Your task to perform on an android device: Open the calendar and show me this week's events? Image 0: 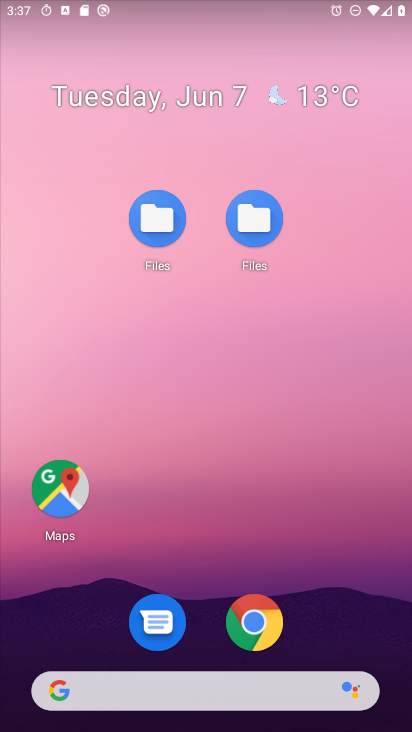
Step 0: drag from (341, 614) to (352, 212)
Your task to perform on an android device: Open the calendar and show me this week's events? Image 1: 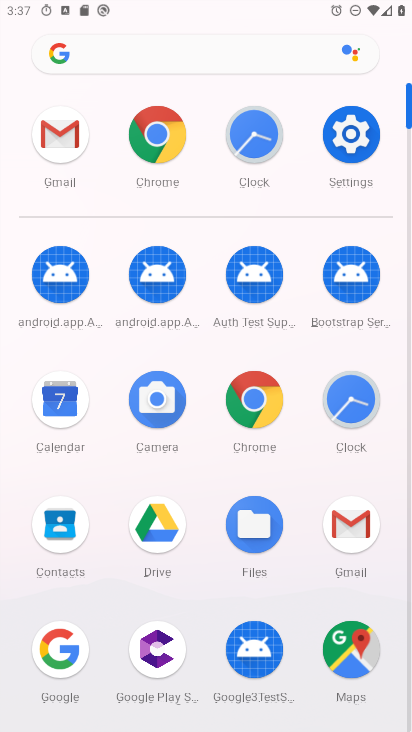
Step 1: click (59, 402)
Your task to perform on an android device: Open the calendar and show me this week's events? Image 2: 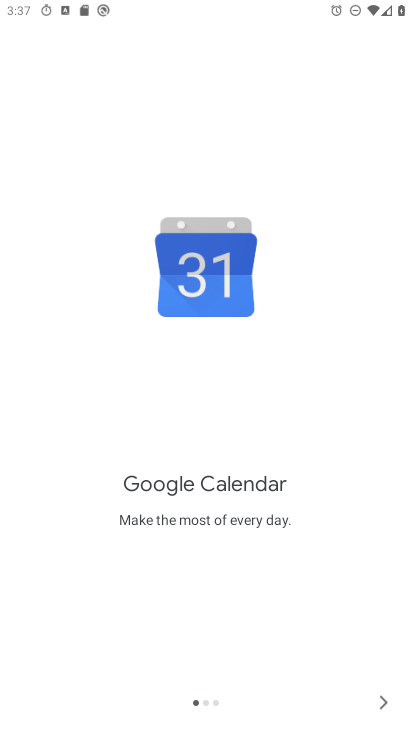
Step 2: click (377, 704)
Your task to perform on an android device: Open the calendar and show me this week's events? Image 3: 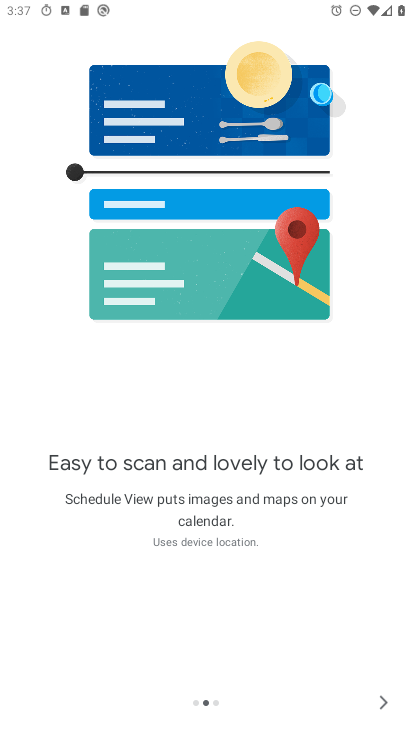
Step 3: click (386, 703)
Your task to perform on an android device: Open the calendar and show me this week's events? Image 4: 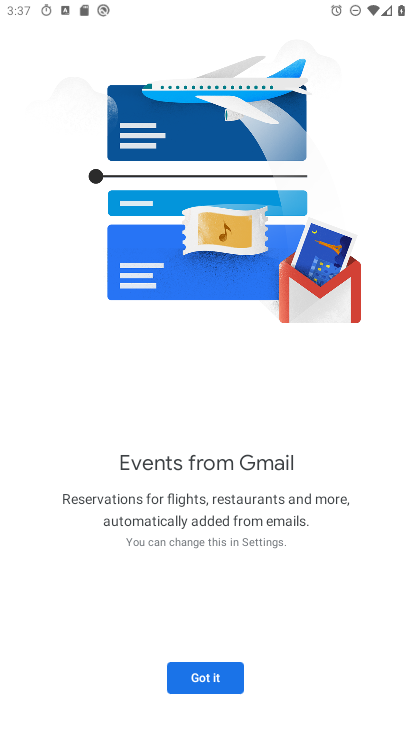
Step 4: click (221, 668)
Your task to perform on an android device: Open the calendar and show me this week's events? Image 5: 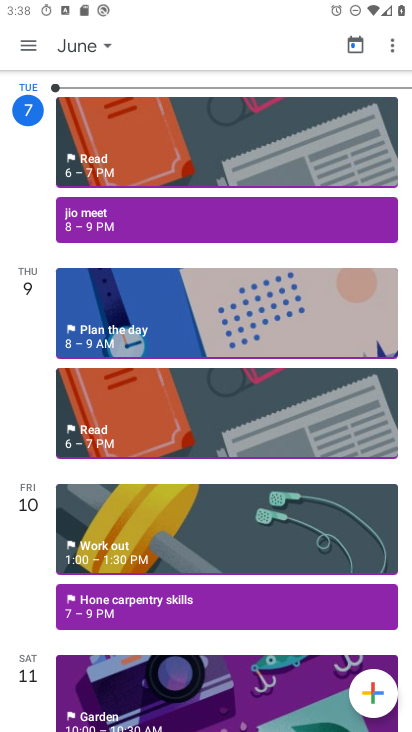
Step 5: task complete